Your task to perform on an android device: Do I have any events today? Image 0: 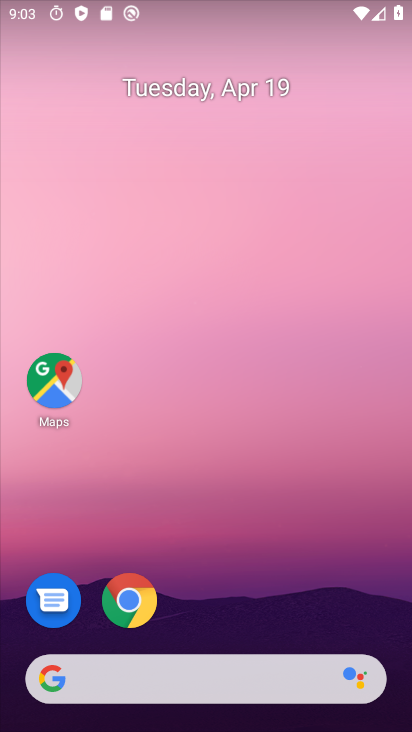
Step 0: drag from (222, 502) to (317, 49)
Your task to perform on an android device: Do I have any events today? Image 1: 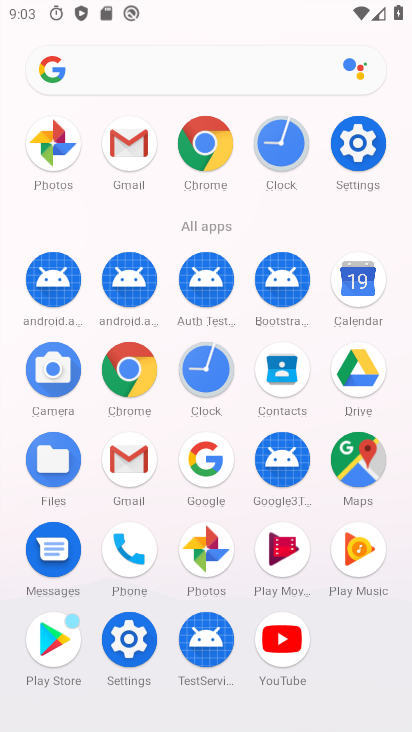
Step 1: click (358, 289)
Your task to perform on an android device: Do I have any events today? Image 2: 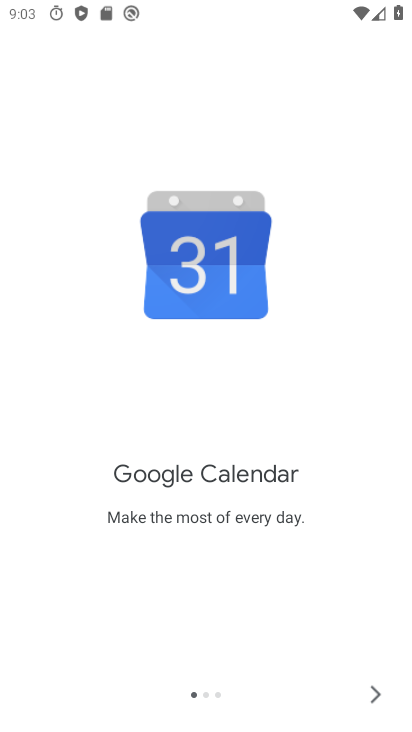
Step 2: click (373, 694)
Your task to perform on an android device: Do I have any events today? Image 3: 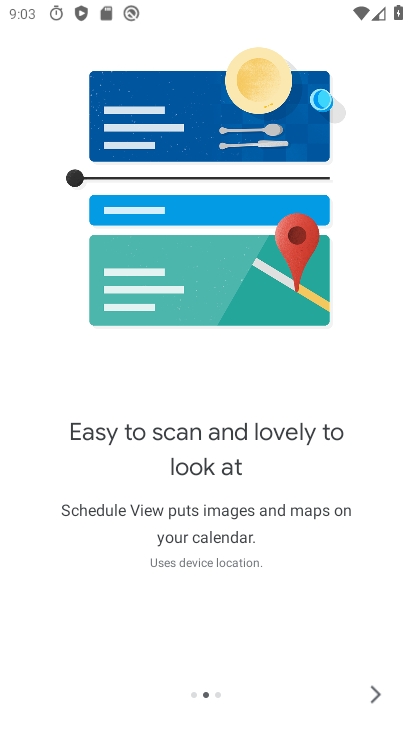
Step 3: click (373, 694)
Your task to perform on an android device: Do I have any events today? Image 4: 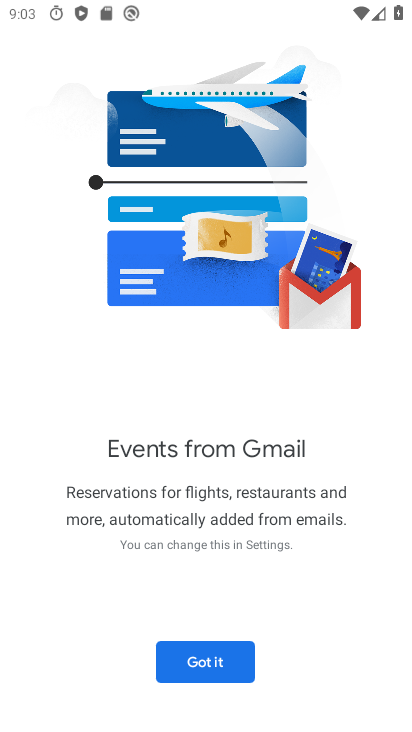
Step 4: click (225, 665)
Your task to perform on an android device: Do I have any events today? Image 5: 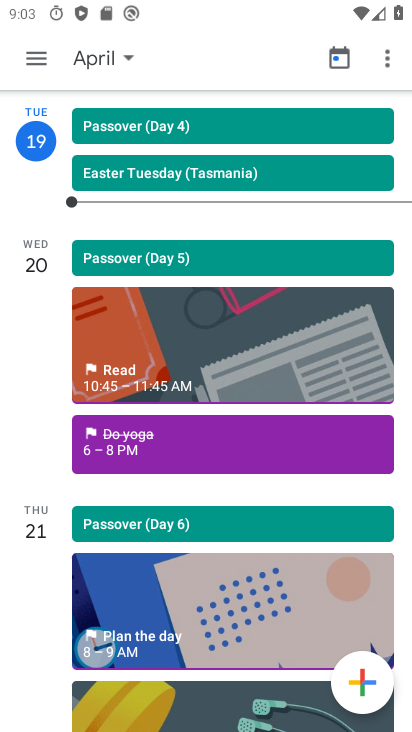
Step 5: task complete